Your task to perform on an android device: clear history in the chrome app Image 0: 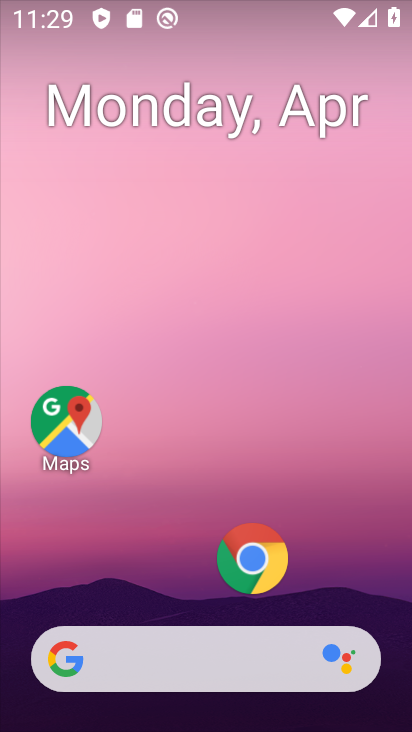
Step 0: drag from (206, 553) to (245, 200)
Your task to perform on an android device: clear history in the chrome app Image 1: 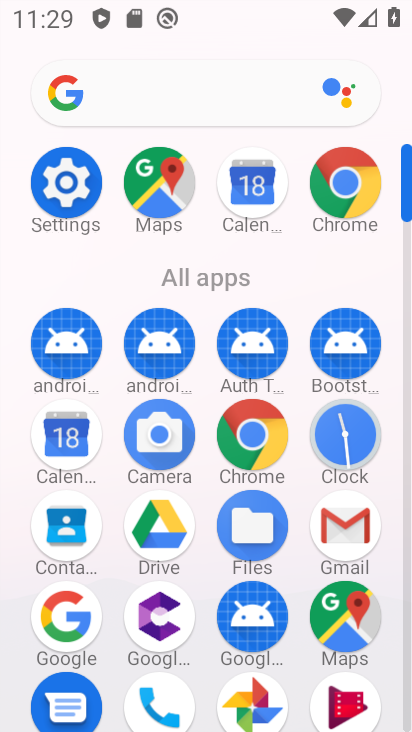
Step 1: click (344, 185)
Your task to perform on an android device: clear history in the chrome app Image 2: 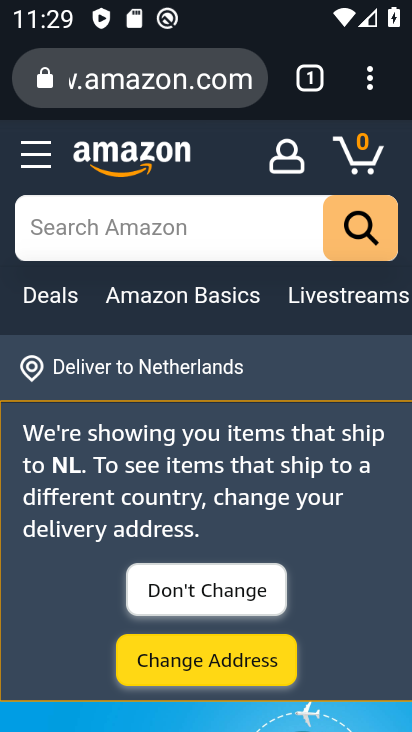
Step 2: click (378, 80)
Your task to perform on an android device: clear history in the chrome app Image 3: 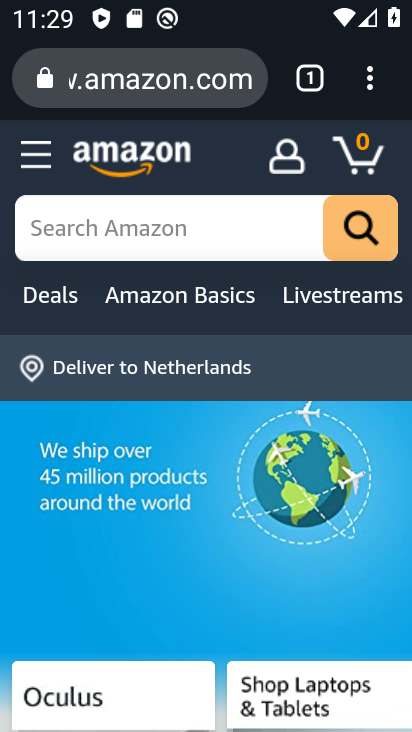
Step 3: click (372, 86)
Your task to perform on an android device: clear history in the chrome app Image 4: 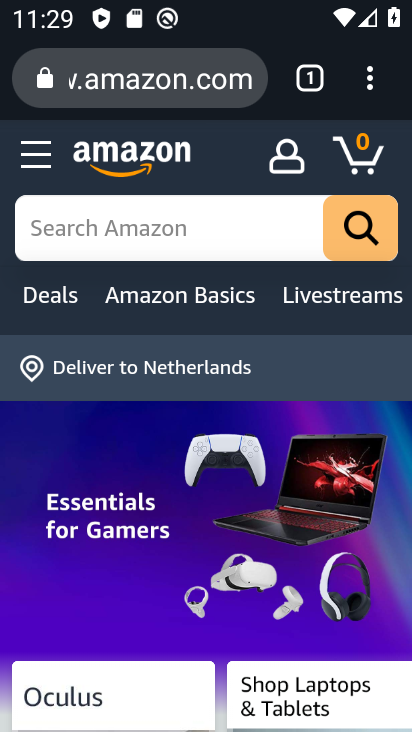
Step 4: click (370, 80)
Your task to perform on an android device: clear history in the chrome app Image 5: 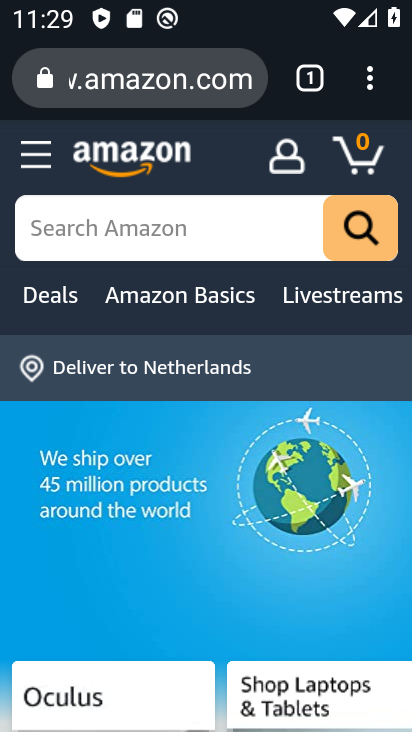
Step 5: click (374, 80)
Your task to perform on an android device: clear history in the chrome app Image 6: 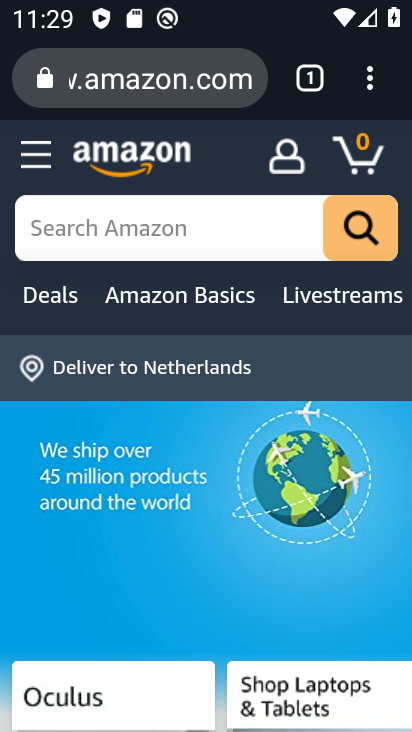
Step 6: click (370, 81)
Your task to perform on an android device: clear history in the chrome app Image 7: 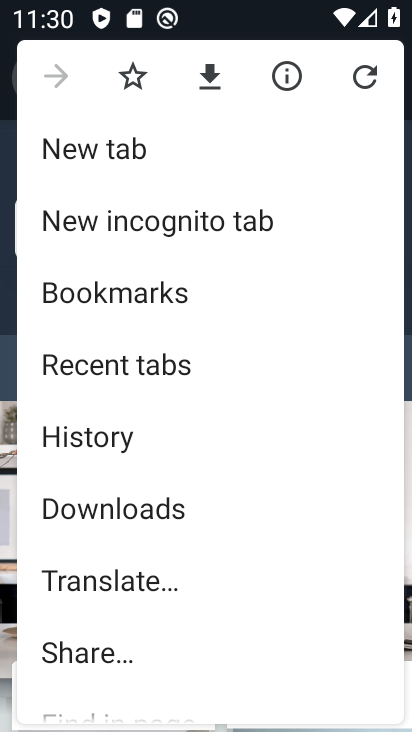
Step 7: click (115, 427)
Your task to perform on an android device: clear history in the chrome app Image 8: 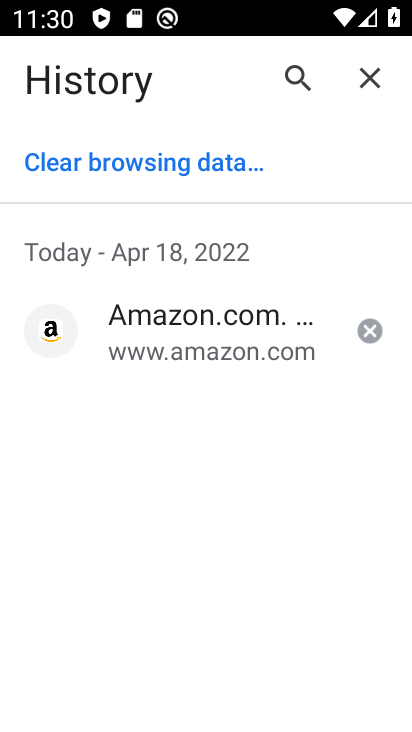
Step 8: click (147, 161)
Your task to perform on an android device: clear history in the chrome app Image 9: 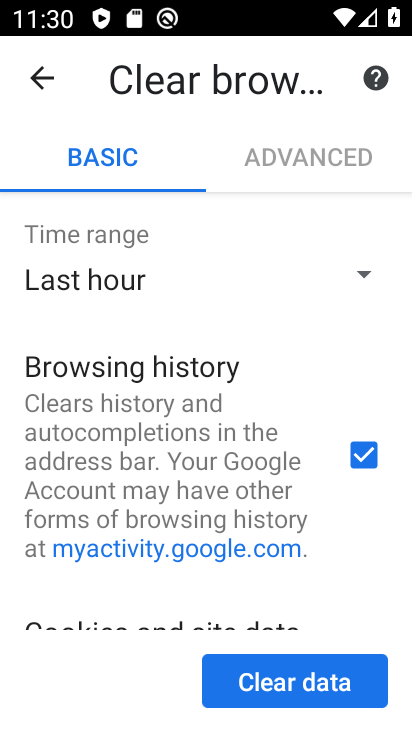
Step 9: drag from (258, 465) to (293, 258)
Your task to perform on an android device: clear history in the chrome app Image 10: 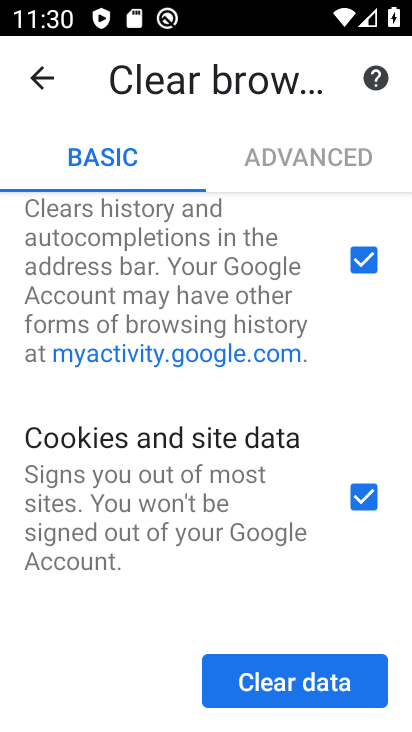
Step 10: click (295, 674)
Your task to perform on an android device: clear history in the chrome app Image 11: 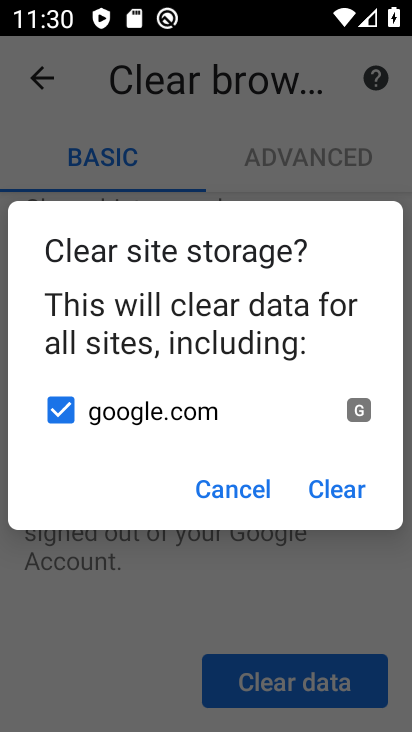
Step 11: click (341, 485)
Your task to perform on an android device: clear history in the chrome app Image 12: 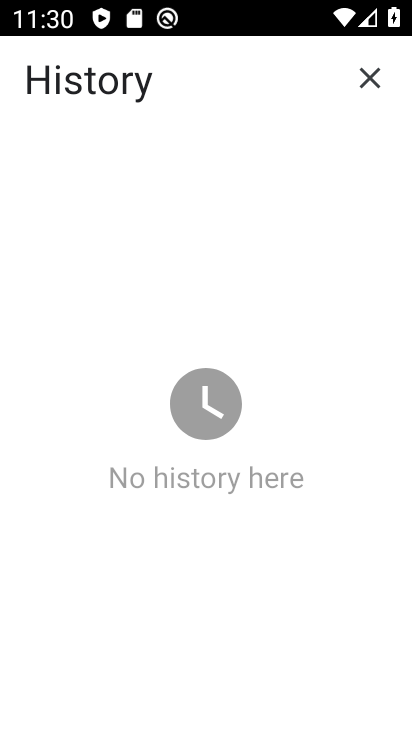
Step 12: task complete